Your task to perform on an android device: show emergency info Image 0: 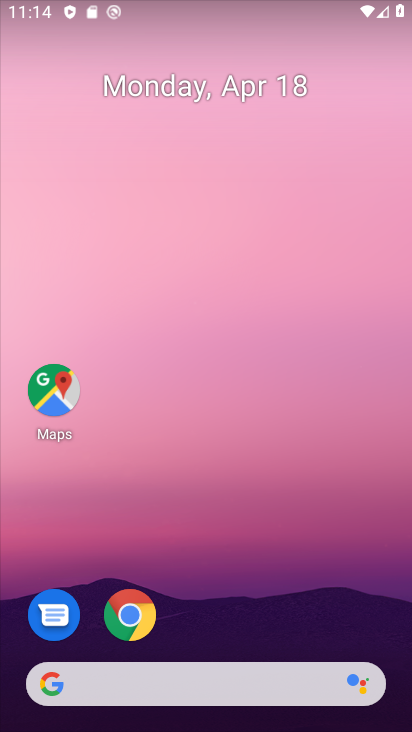
Step 0: click (151, 669)
Your task to perform on an android device: show emergency info Image 1: 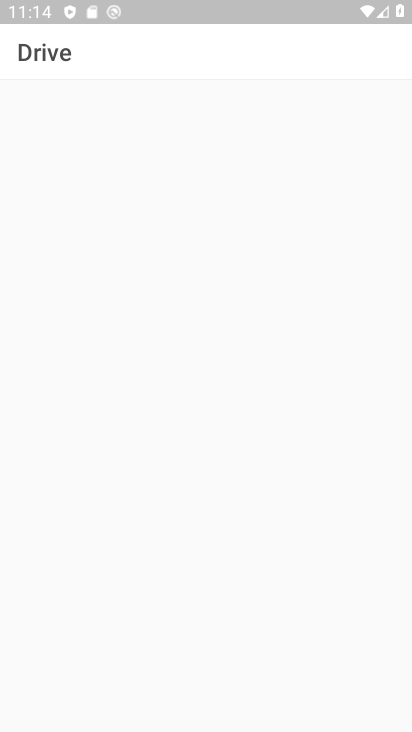
Step 1: press home button
Your task to perform on an android device: show emergency info Image 2: 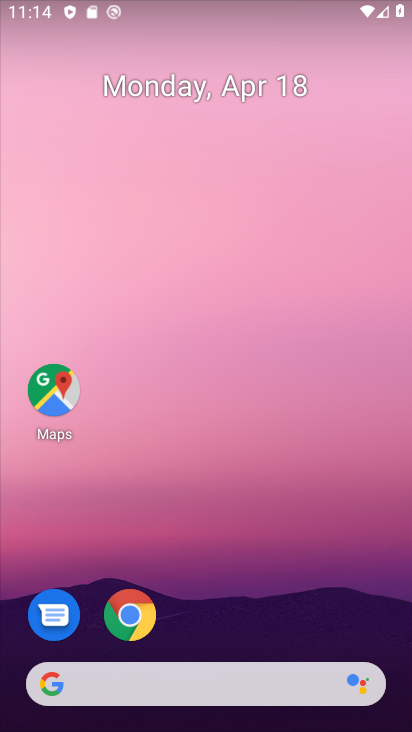
Step 2: drag from (236, 627) to (236, 122)
Your task to perform on an android device: show emergency info Image 3: 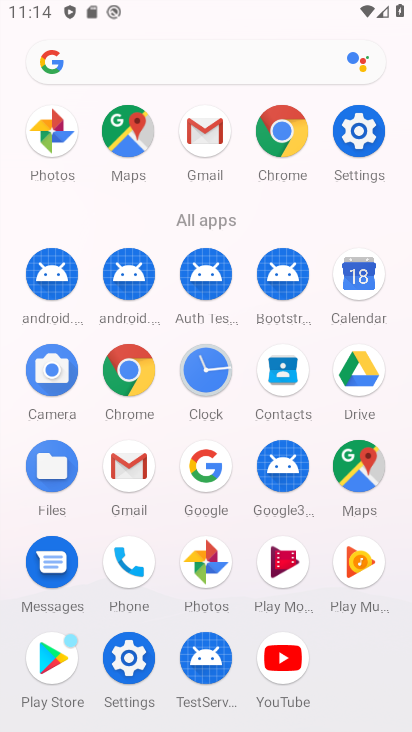
Step 3: click (370, 114)
Your task to perform on an android device: show emergency info Image 4: 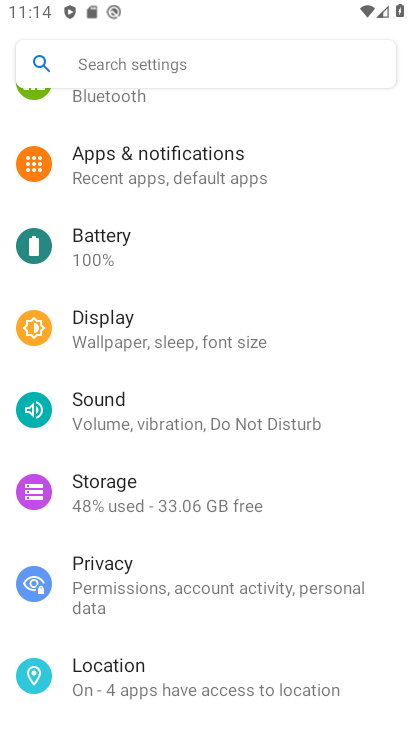
Step 4: drag from (220, 620) to (224, 266)
Your task to perform on an android device: show emergency info Image 5: 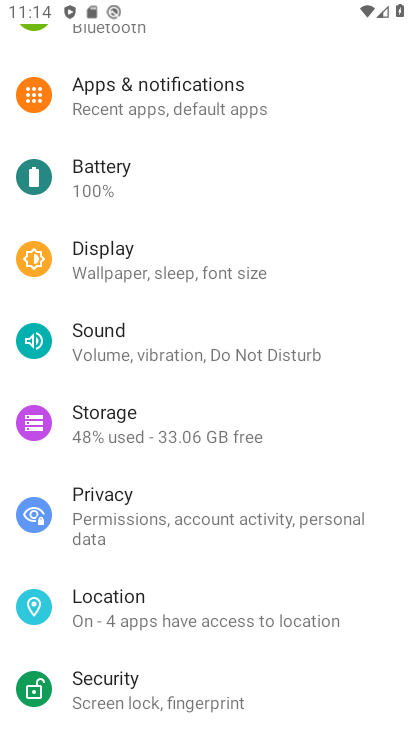
Step 5: drag from (234, 546) to (269, 238)
Your task to perform on an android device: show emergency info Image 6: 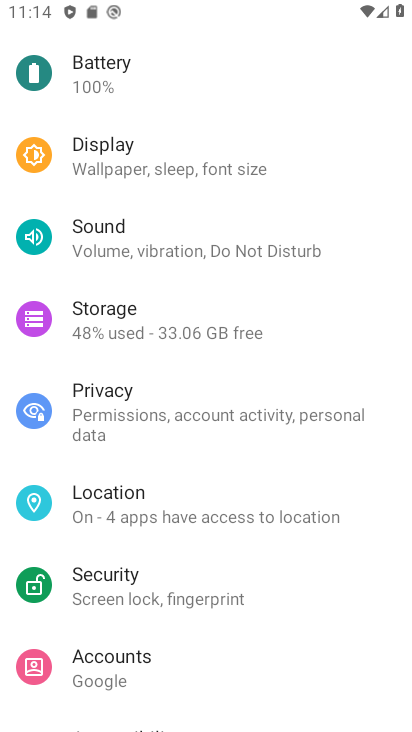
Step 6: drag from (230, 652) to (286, 137)
Your task to perform on an android device: show emergency info Image 7: 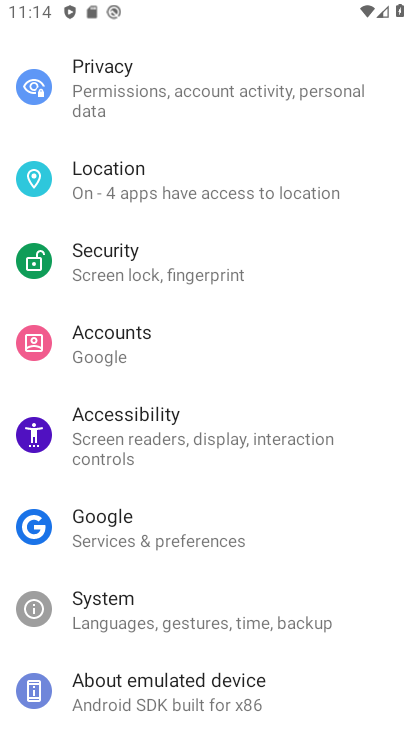
Step 7: click (197, 682)
Your task to perform on an android device: show emergency info Image 8: 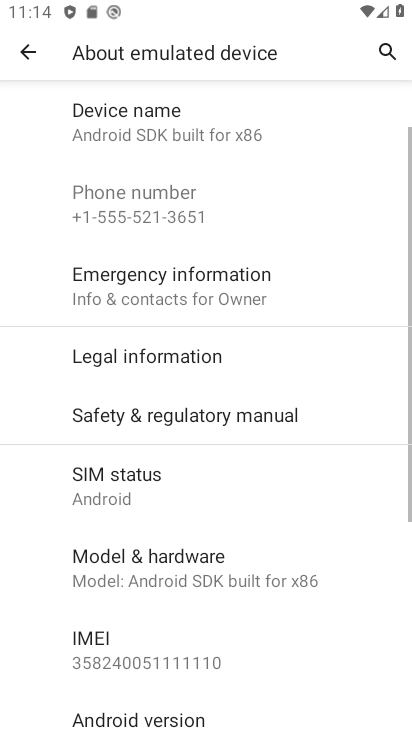
Step 8: drag from (239, 552) to (241, 231)
Your task to perform on an android device: show emergency info Image 9: 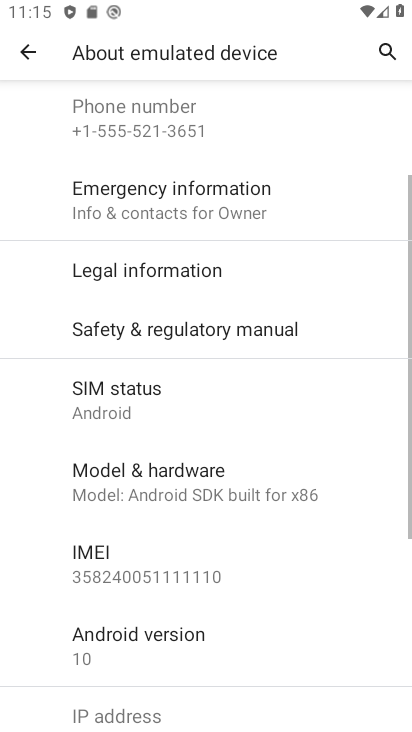
Step 9: drag from (262, 632) to (263, 499)
Your task to perform on an android device: show emergency info Image 10: 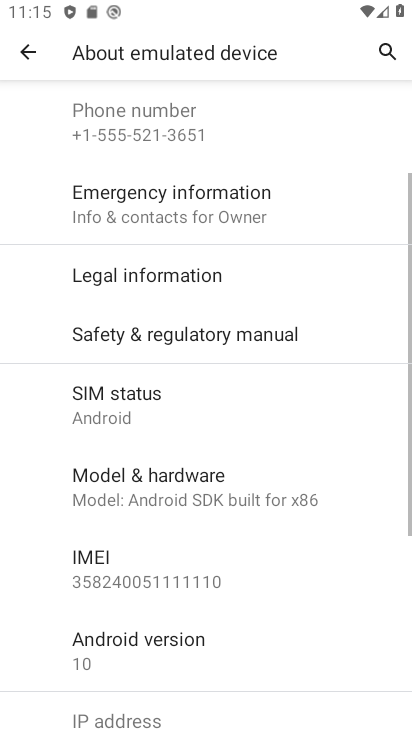
Step 10: click (199, 205)
Your task to perform on an android device: show emergency info Image 11: 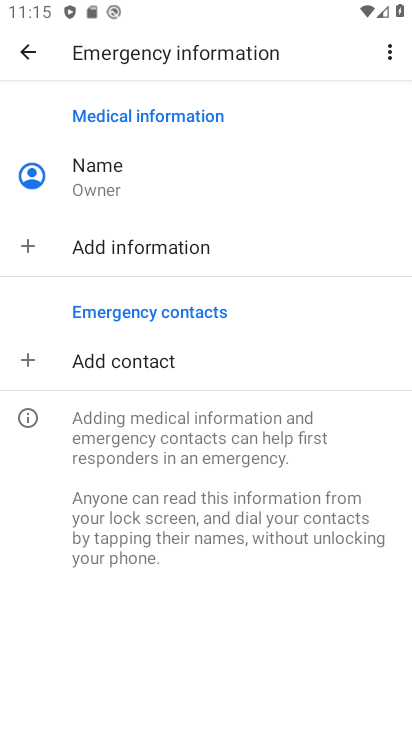
Step 11: task complete